Your task to perform on an android device: Open Android settings Image 0: 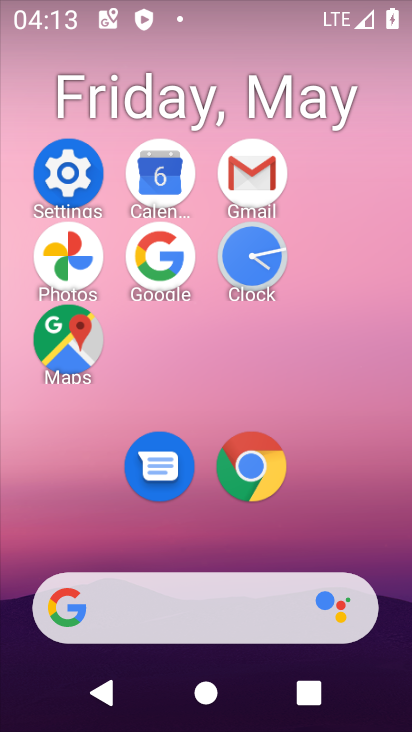
Step 0: click (81, 200)
Your task to perform on an android device: Open Android settings Image 1: 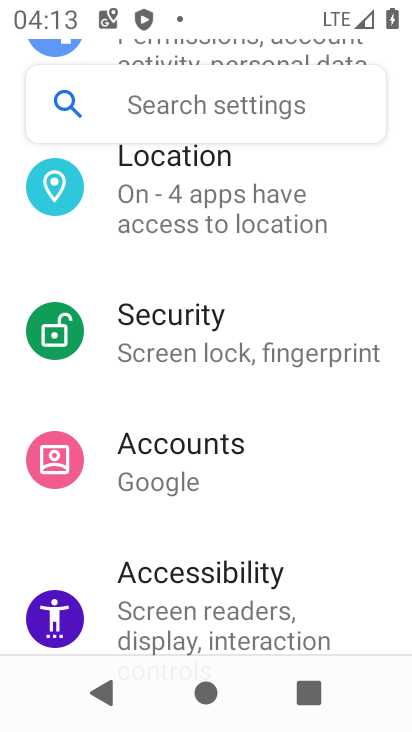
Step 1: task complete